Your task to perform on an android device: turn on location history Image 0: 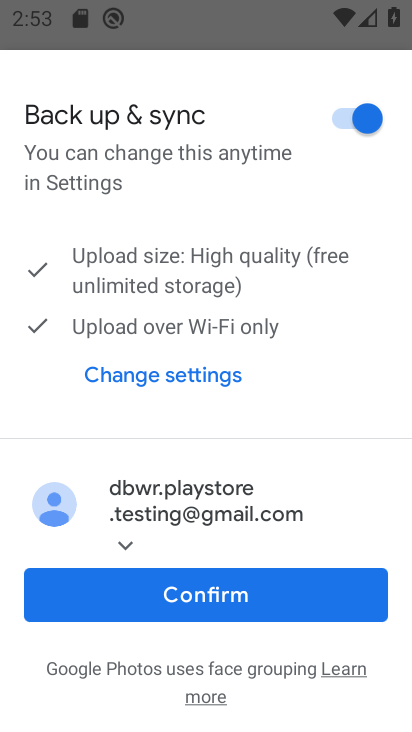
Step 0: press home button
Your task to perform on an android device: turn on location history Image 1: 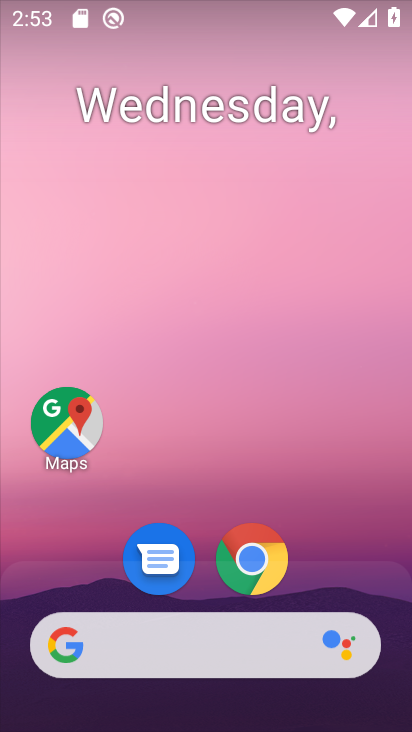
Step 1: drag from (195, 606) to (185, 11)
Your task to perform on an android device: turn on location history Image 2: 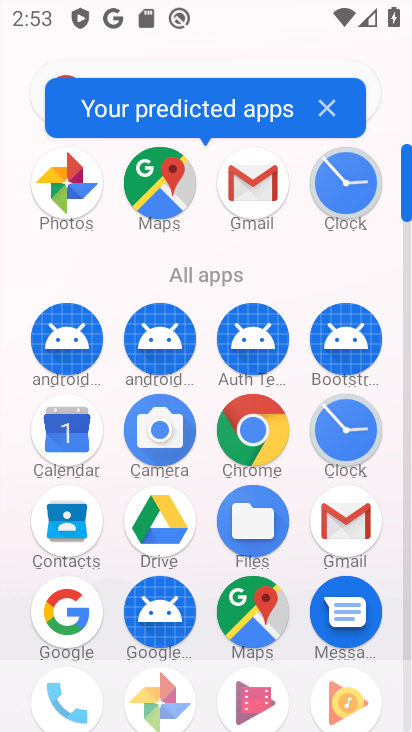
Step 2: drag from (196, 482) to (253, 5)
Your task to perform on an android device: turn on location history Image 3: 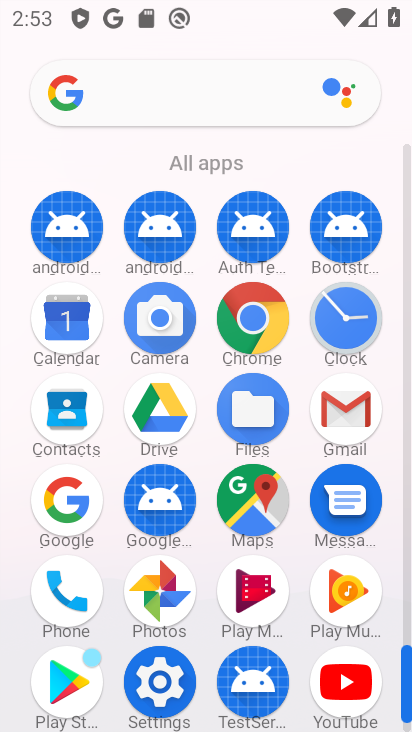
Step 3: click (159, 692)
Your task to perform on an android device: turn on location history Image 4: 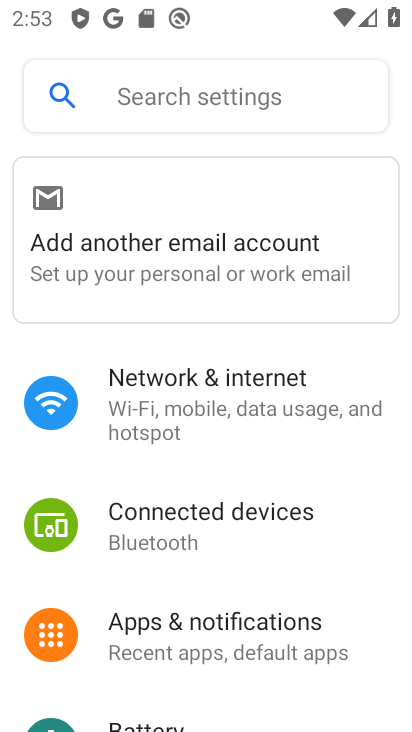
Step 4: drag from (232, 548) to (262, 300)
Your task to perform on an android device: turn on location history Image 5: 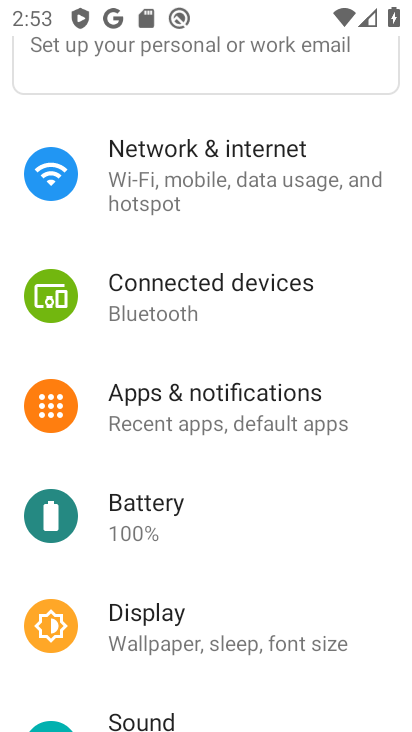
Step 5: drag from (213, 633) to (238, 252)
Your task to perform on an android device: turn on location history Image 6: 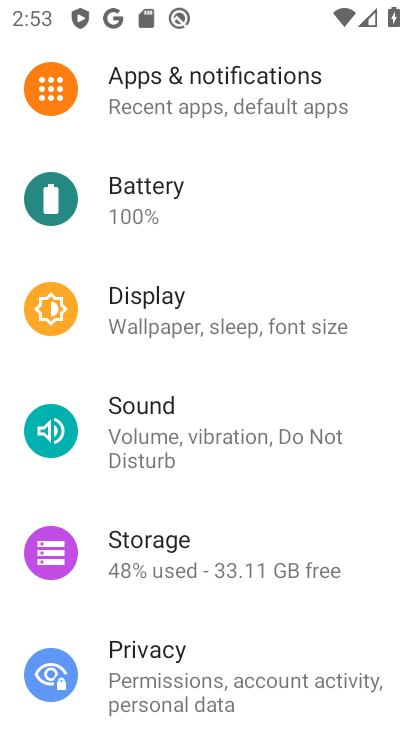
Step 6: drag from (207, 649) to (222, 14)
Your task to perform on an android device: turn on location history Image 7: 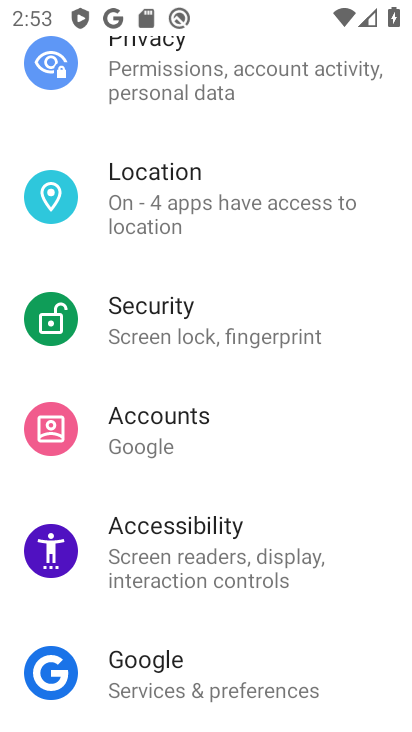
Step 7: click (174, 201)
Your task to perform on an android device: turn on location history Image 8: 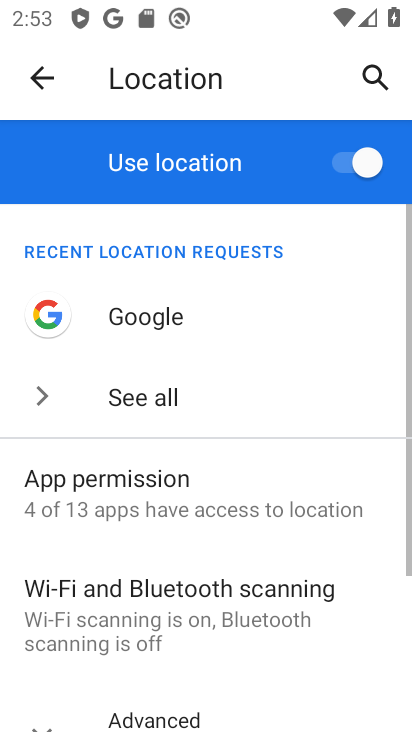
Step 8: drag from (222, 511) to (220, 348)
Your task to perform on an android device: turn on location history Image 9: 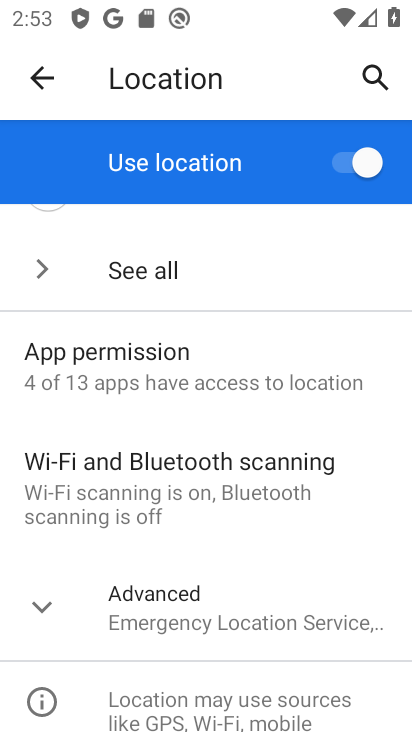
Step 9: click (186, 603)
Your task to perform on an android device: turn on location history Image 10: 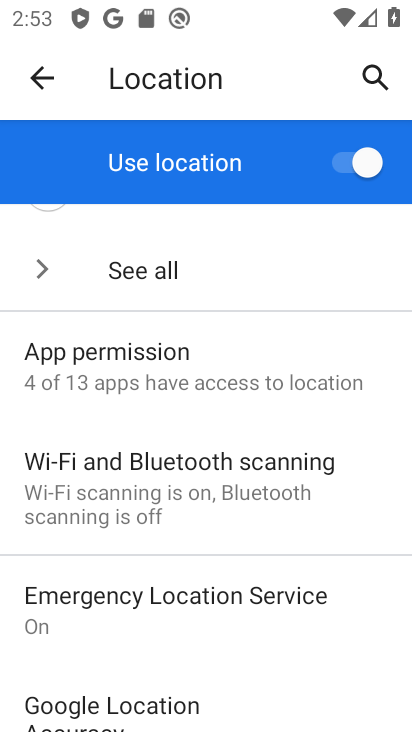
Step 10: drag from (164, 611) to (203, 403)
Your task to perform on an android device: turn on location history Image 11: 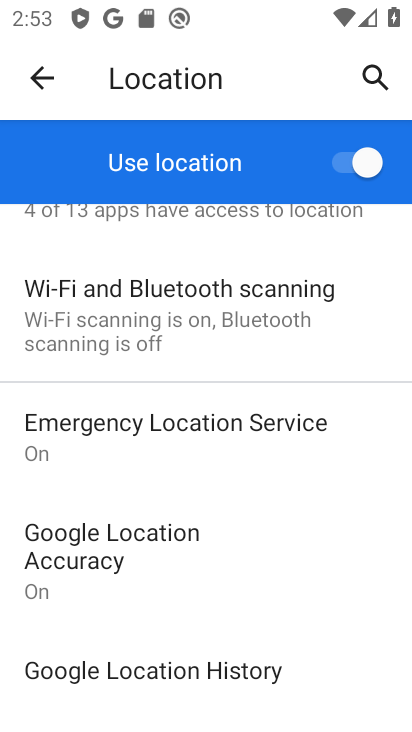
Step 11: drag from (179, 608) to (179, 320)
Your task to perform on an android device: turn on location history Image 12: 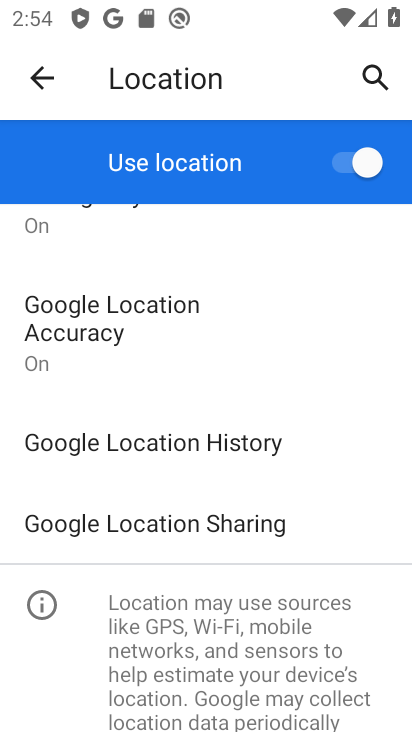
Step 12: click (130, 450)
Your task to perform on an android device: turn on location history Image 13: 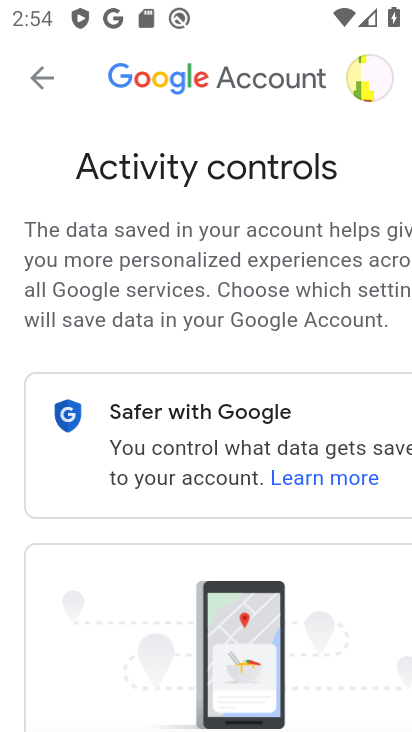
Step 13: task complete